Your task to perform on an android device: delete location history Image 0: 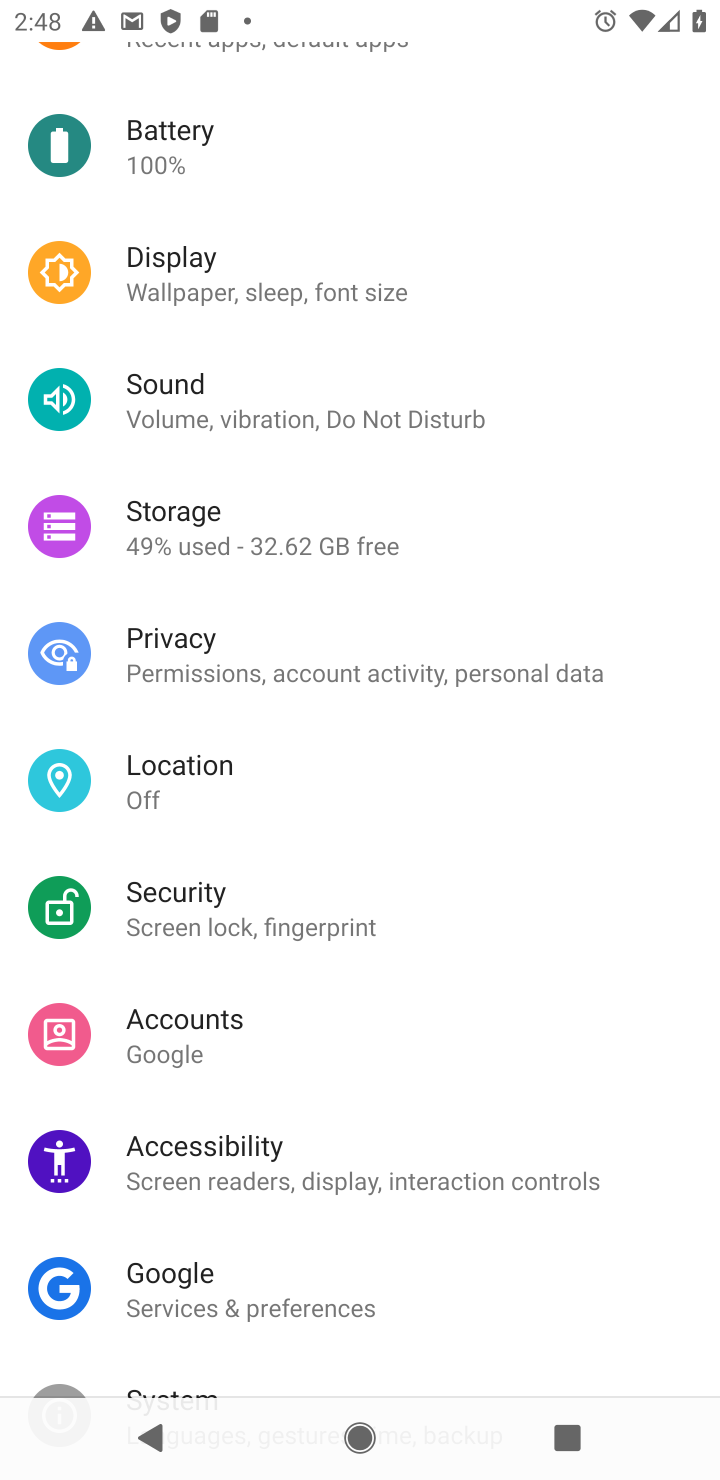
Step 0: press home button
Your task to perform on an android device: delete location history Image 1: 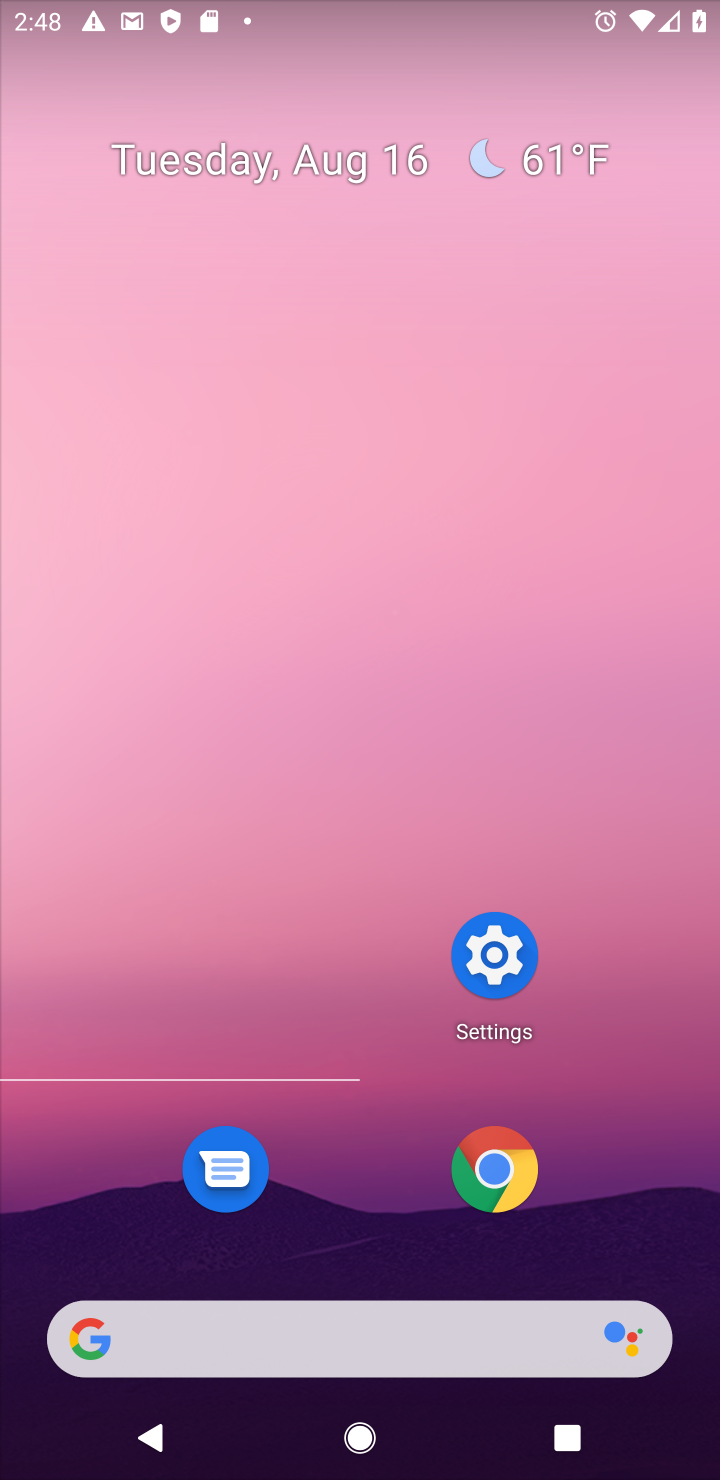
Step 1: drag from (365, 1204) to (541, 202)
Your task to perform on an android device: delete location history Image 2: 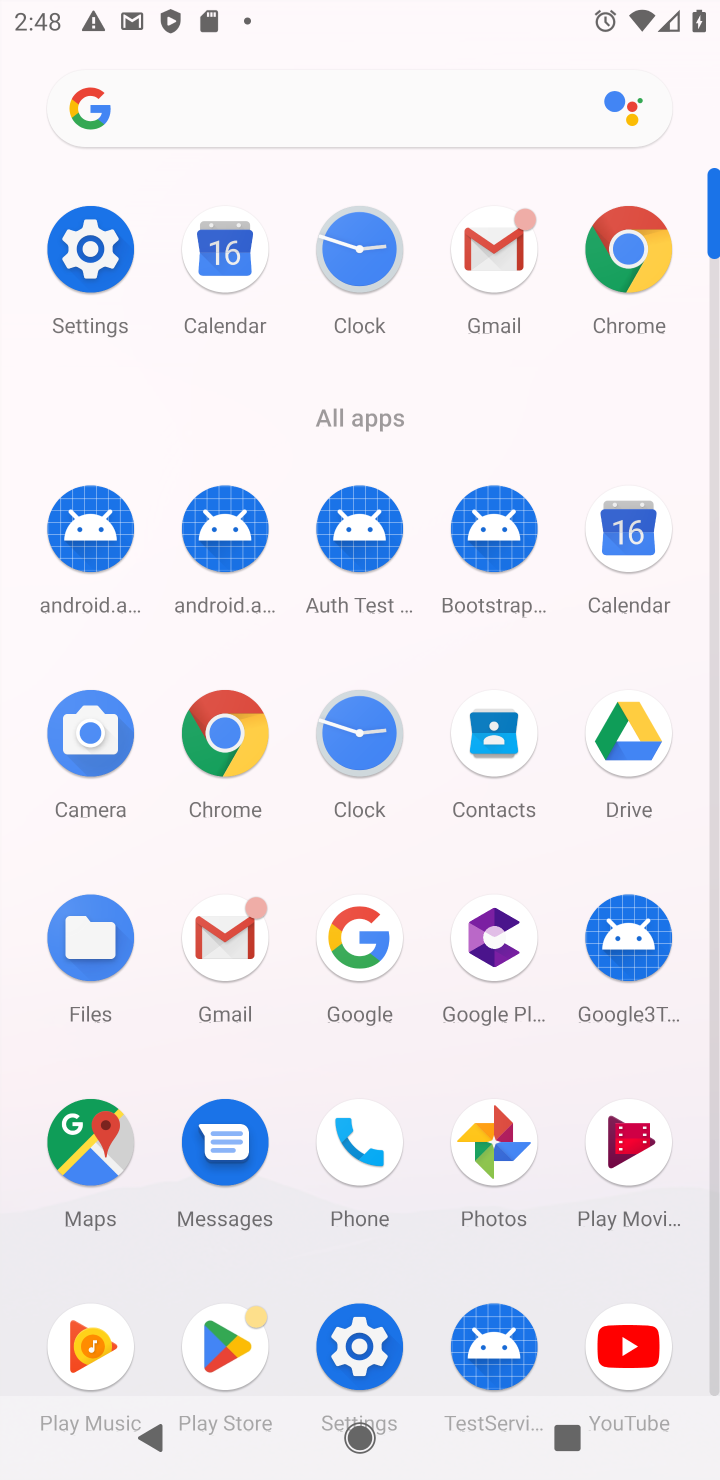
Step 2: drag from (100, 1158) to (193, 887)
Your task to perform on an android device: delete location history Image 3: 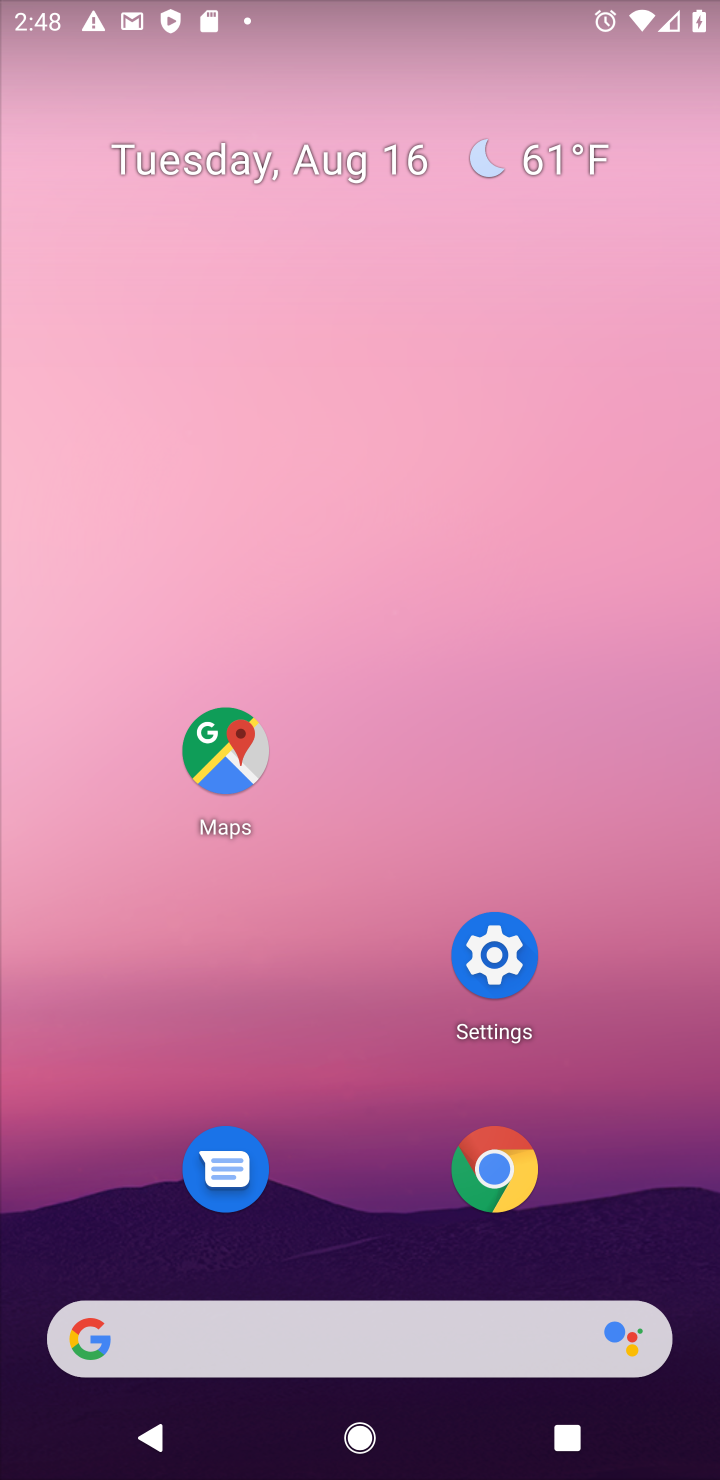
Step 3: click (219, 754)
Your task to perform on an android device: delete location history Image 4: 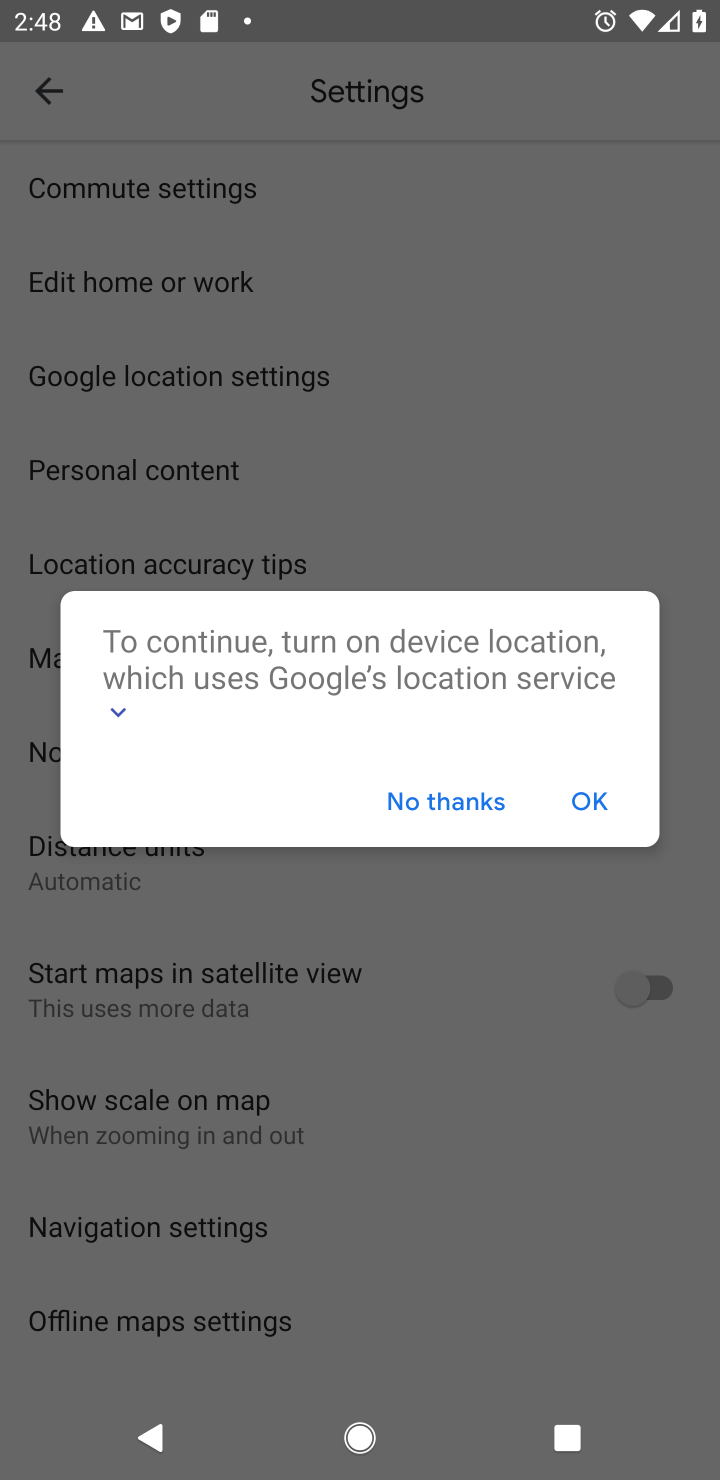
Step 4: click (589, 797)
Your task to perform on an android device: delete location history Image 5: 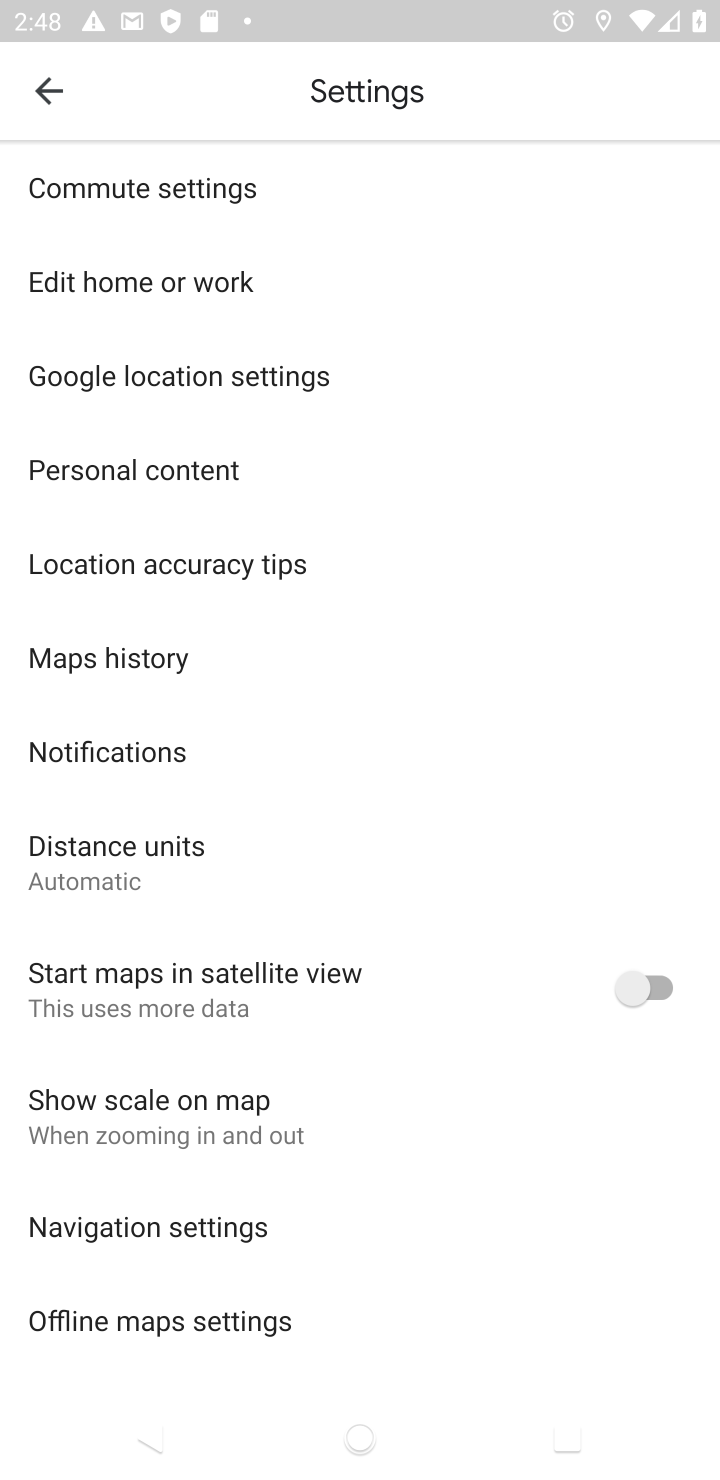
Step 5: press back button
Your task to perform on an android device: delete location history Image 6: 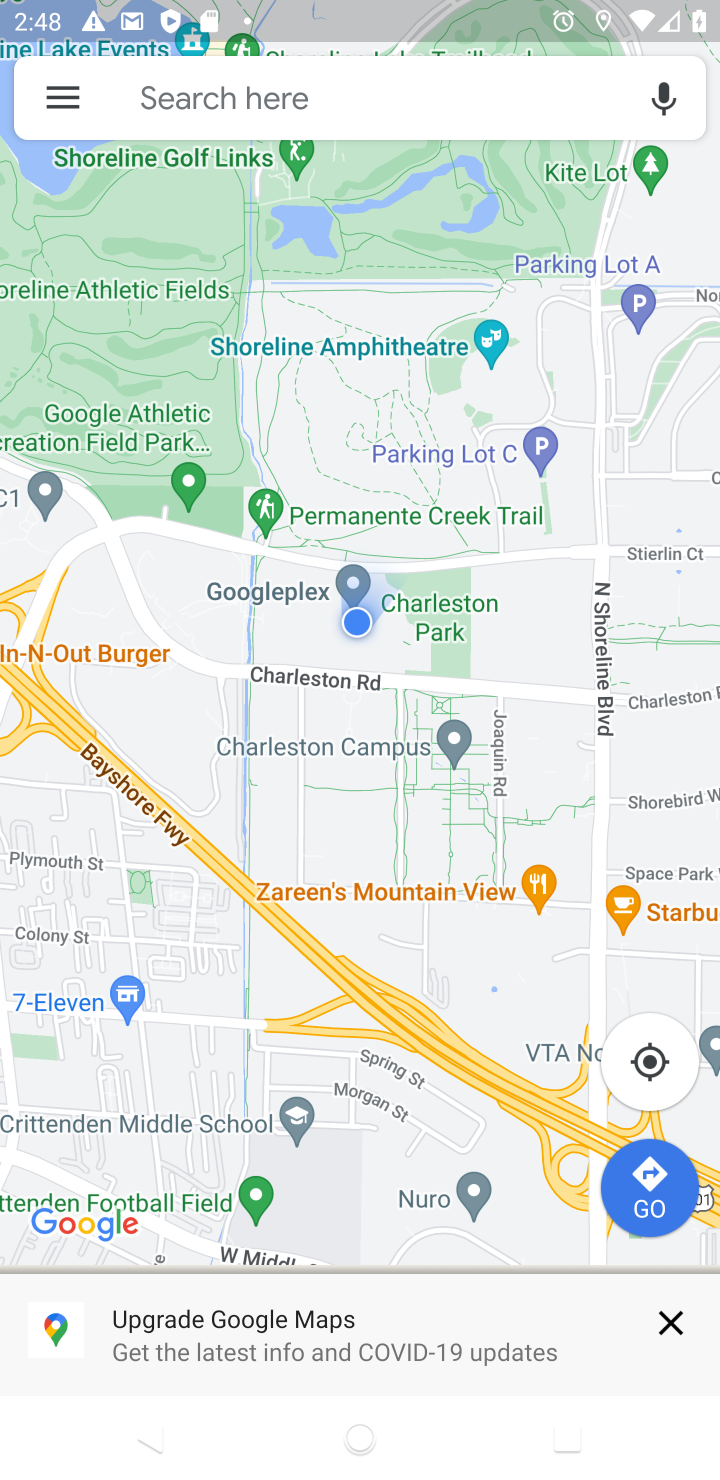
Step 6: click (53, 101)
Your task to perform on an android device: delete location history Image 7: 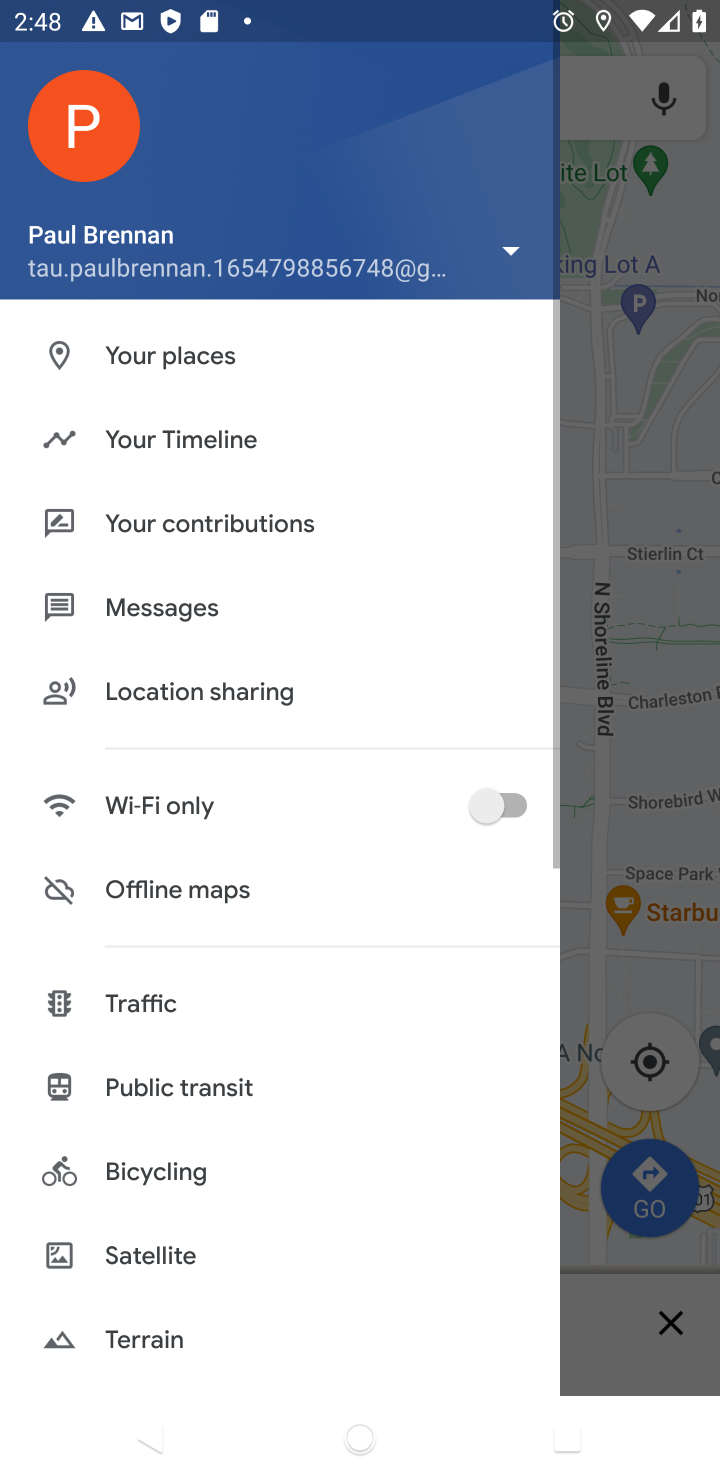
Step 7: click (207, 448)
Your task to perform on an android device: delete location history Image 8: 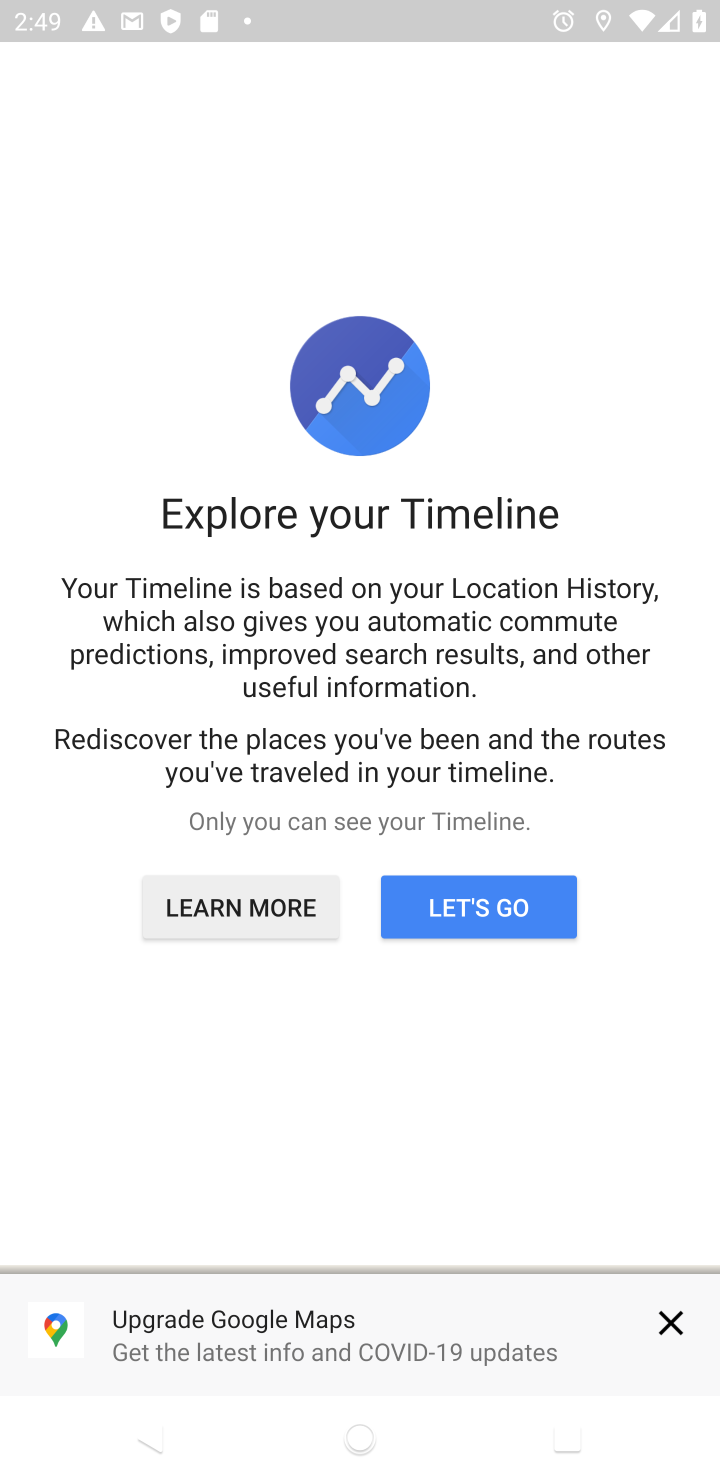
Step 8: click (479, 907)
Your task to perform on an android device: delete location history Image 9: 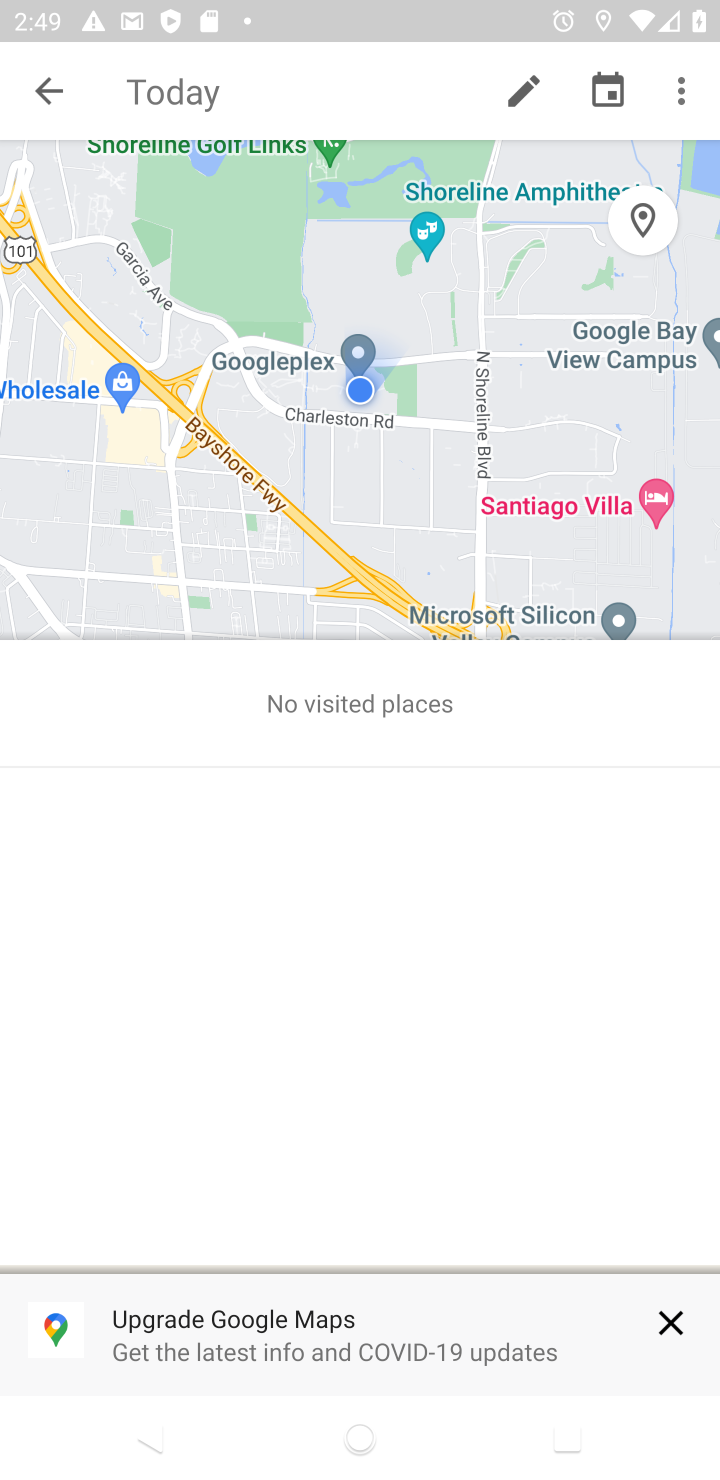
Step 9: click (680, 79)
Your task to perform on an android device: delete location history Image 10: 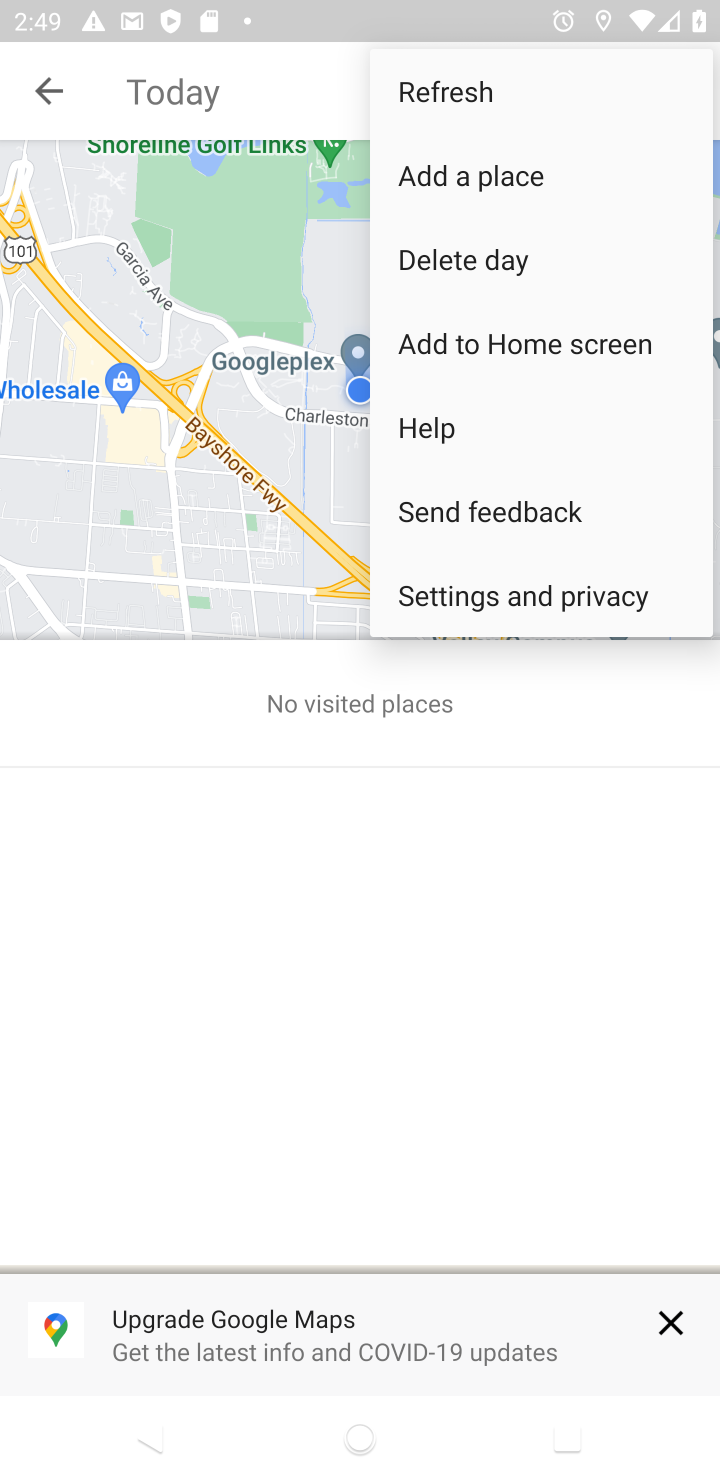
Step 10: click (499, 598)
Your task to perform on an android device: delete location history Image 11: 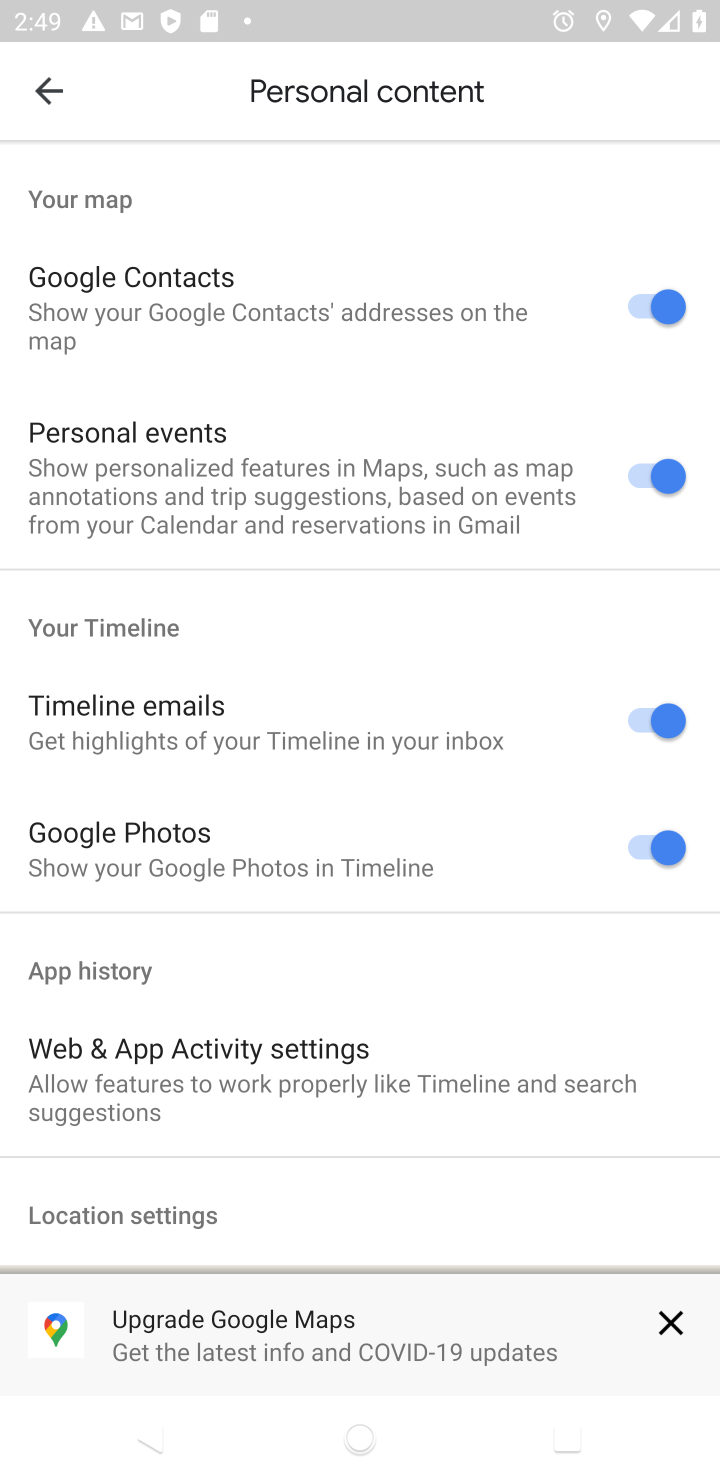
Step 11: drag from (308, 1101) to (586, 5)
Your task to perform on an android device: delete location history Image 12: 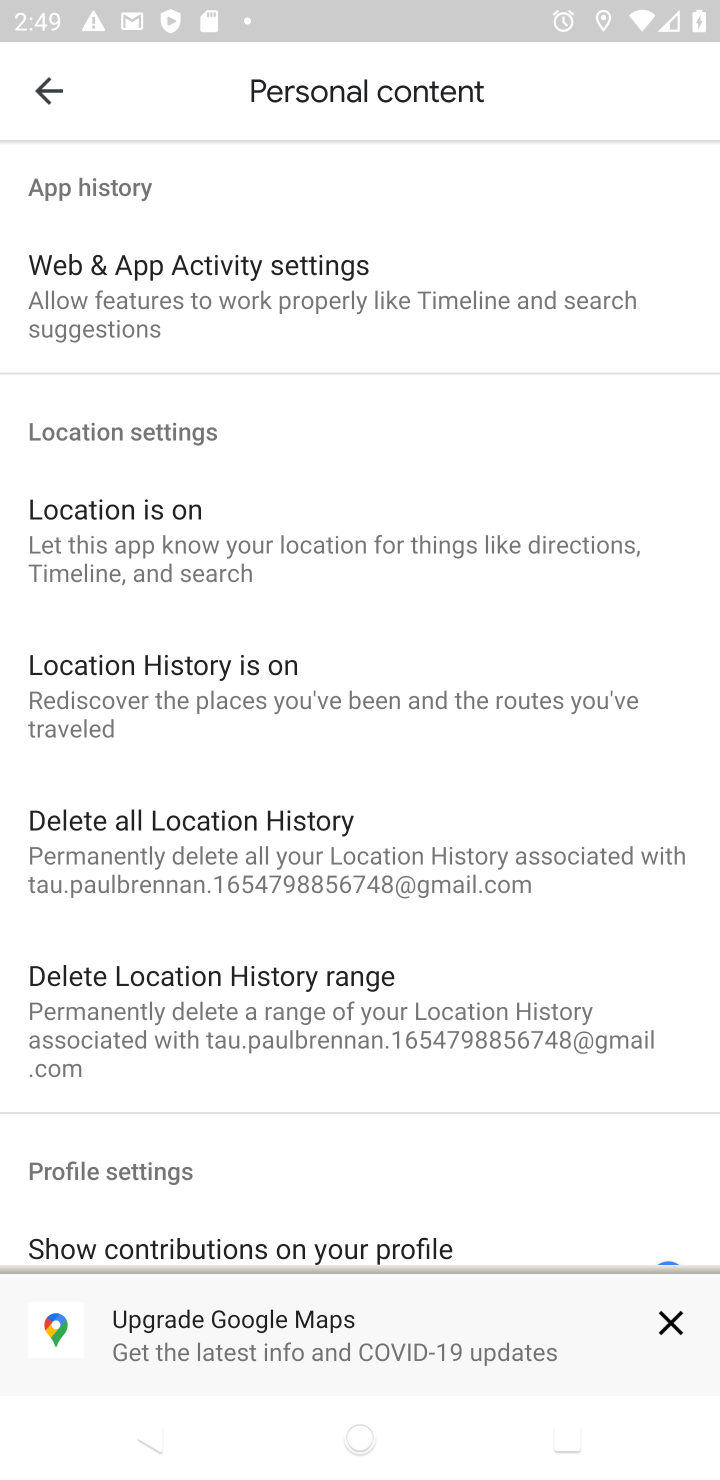
Step 12: click (236, 837)
Your task to perform on an android device: delete location history Image 13: 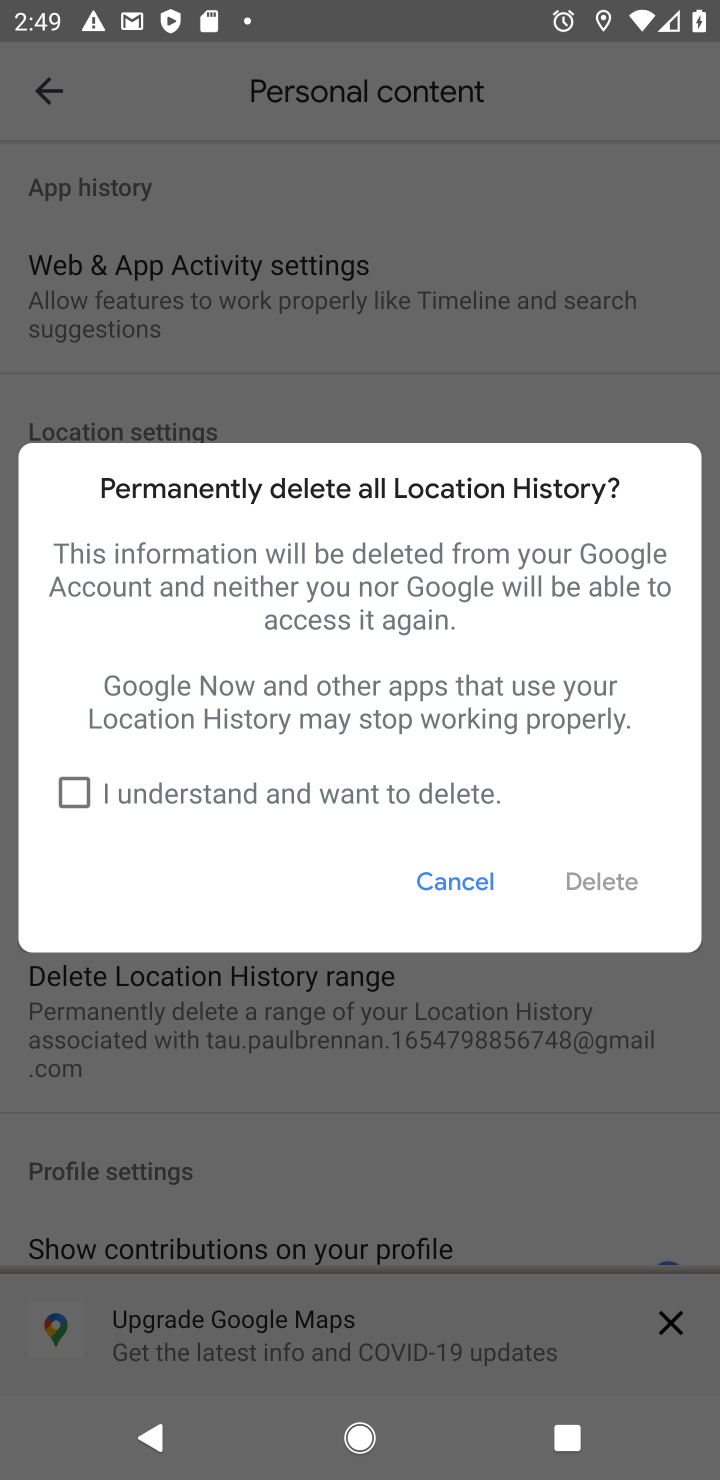
Step 13: click (72, 782)
Your task to perform on an android device: delete location history Image 14: 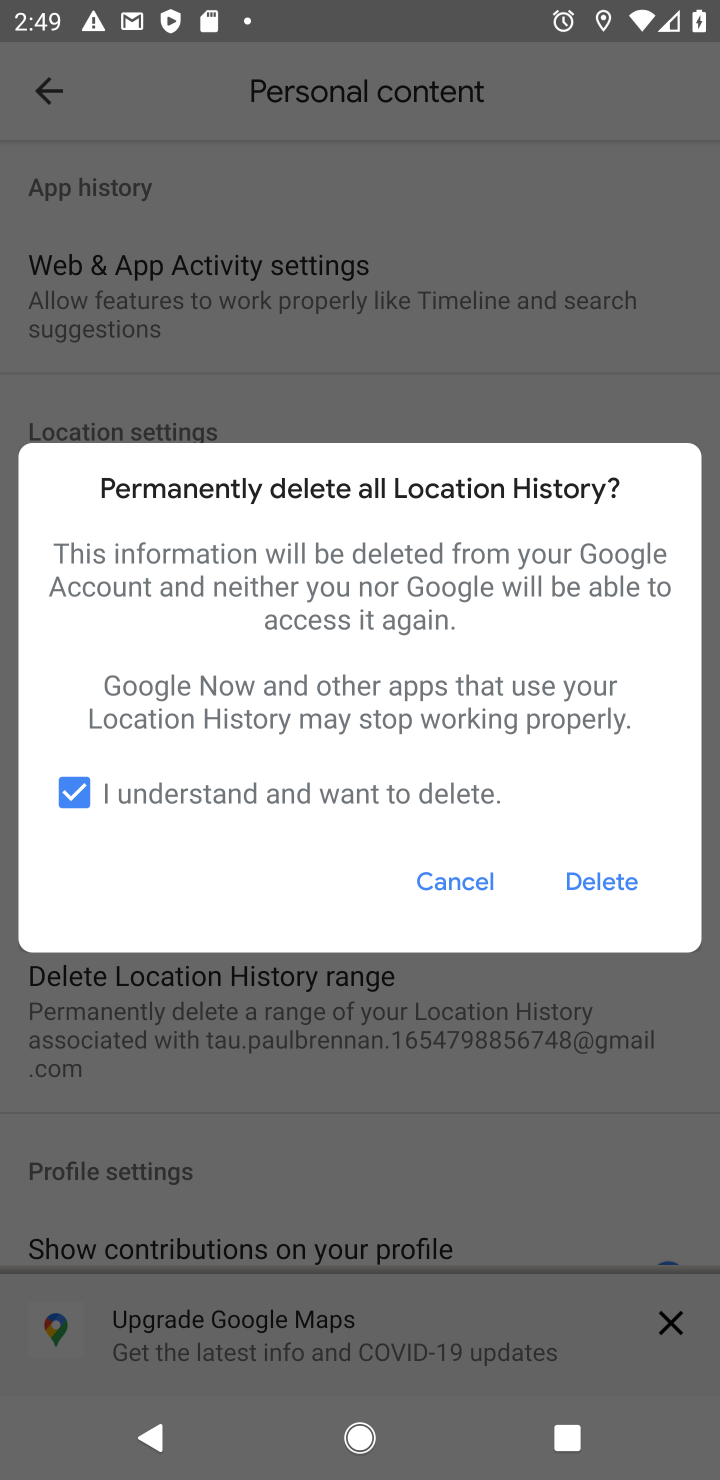
Step 14: click (606, 887)
Your task to perform on an android device: delete location history Image 15: 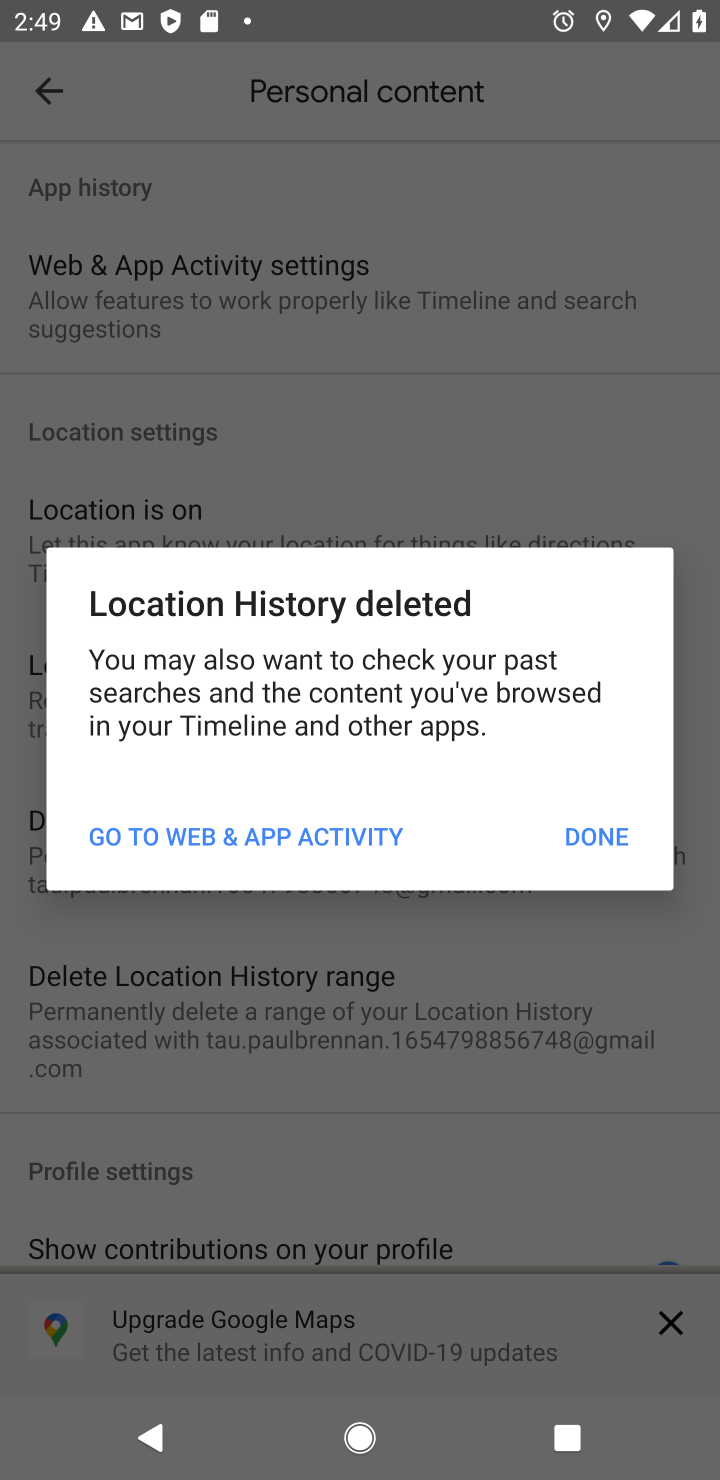
Step 15: click (568, 815)
Your task to perform on an android device: delete location history Image 16: 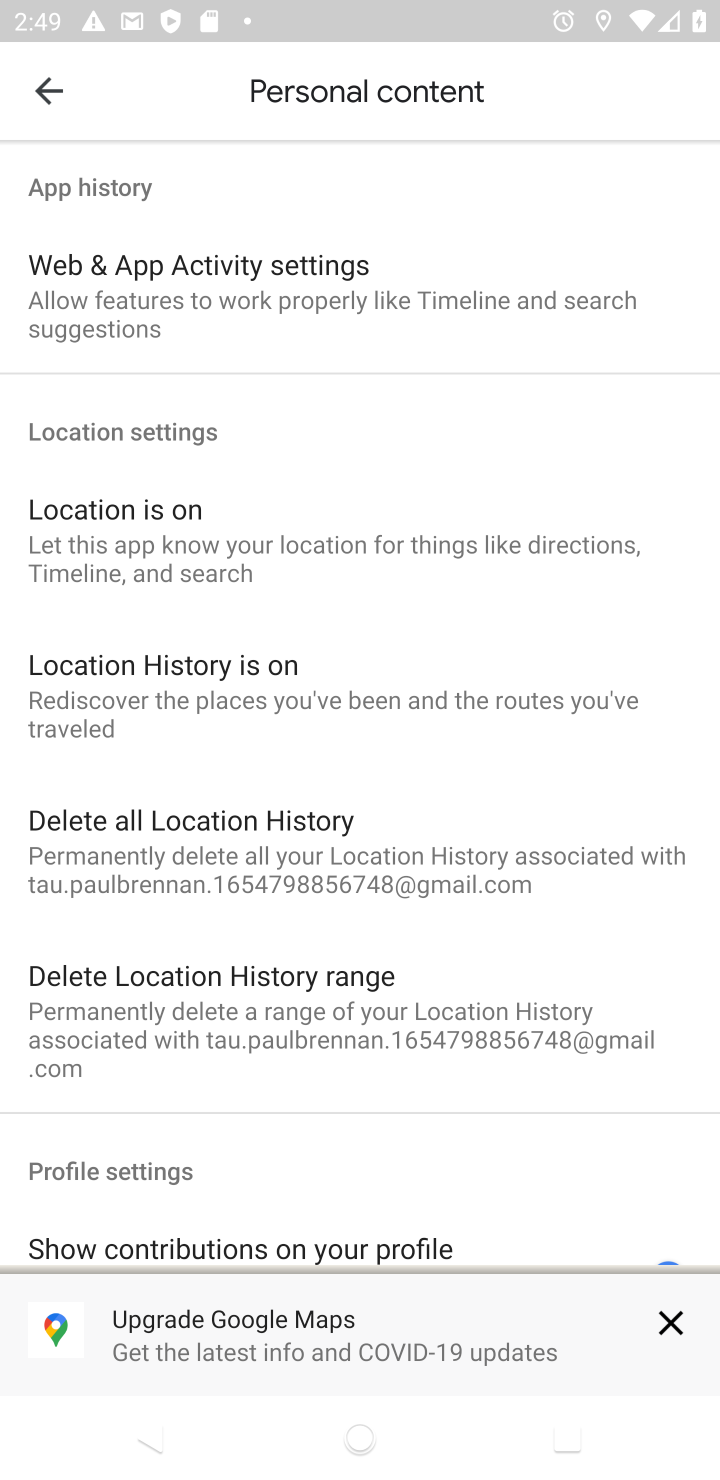
Step 16: task complete